Your task to perform on an android device: Search for vegetarian restaurants on Maps Image 0: 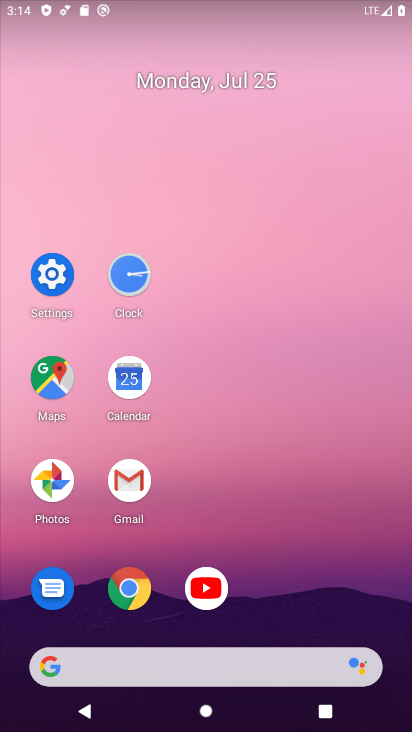
Step 0: click (50, 382)
Your task to perform on an android device: Search for vegetarian restaurants on Maps Image 1: 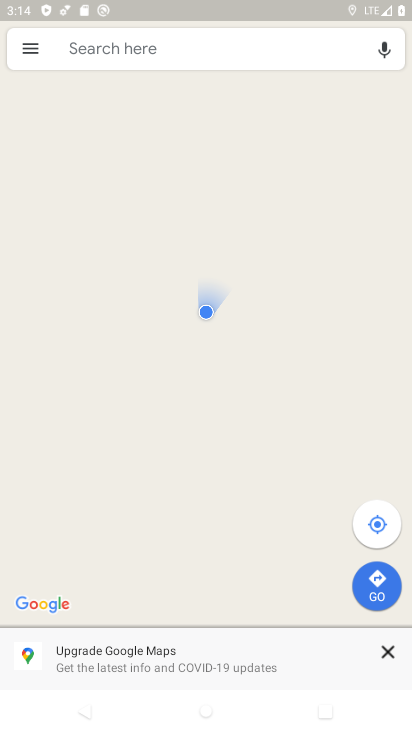
Step 1: click (112, 44)
Your task to perform on an android device: Search for vegetarian restaurants on Maps Image 2: 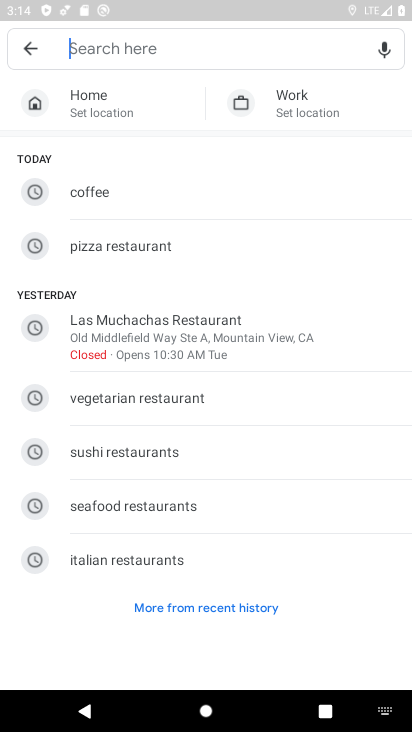
Step 2: click (143, 397)
Your task to perform on an android device: Search for vegetarian restaurants on Maps Image 3: 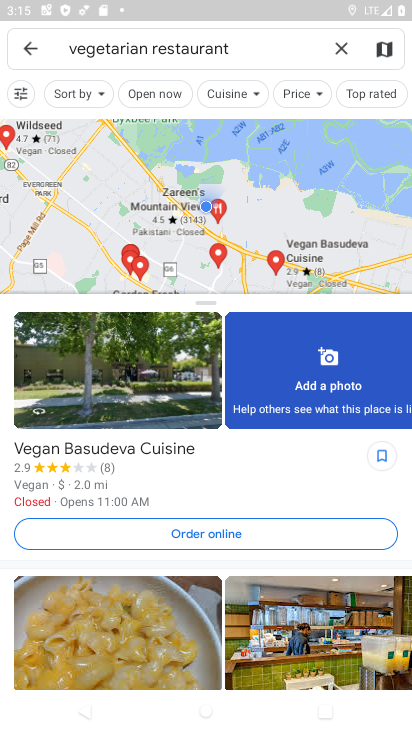
Step 3: task complete